Your task to perform on an android device: delete the emails in spam in the gmail app Image 0: 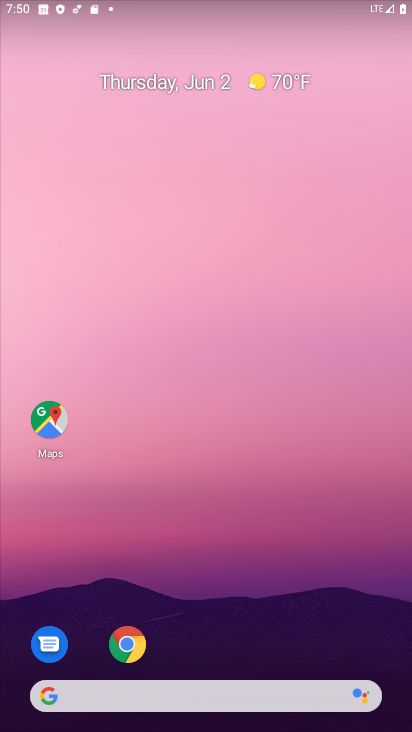
Step 0: drag from (198, 545) to (138, 27)
Your task to perform on an android device: delete the emails in spam in the gmail app Image 1: 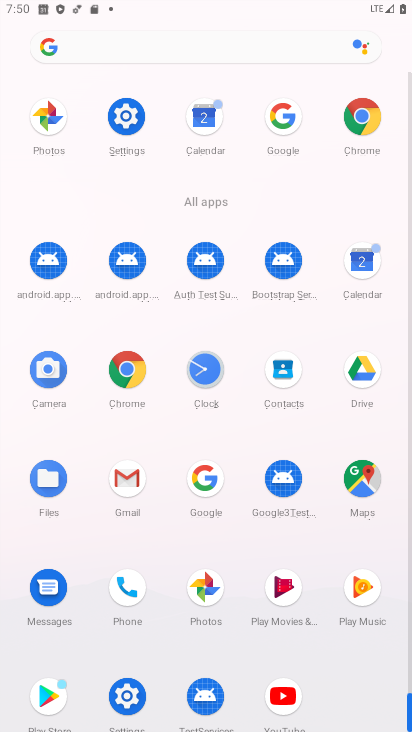
Step 1: drag from (22, 561) to (8, 191)
Your task to perform on an android device: delete the emails in spam in the gmail app Image 2: 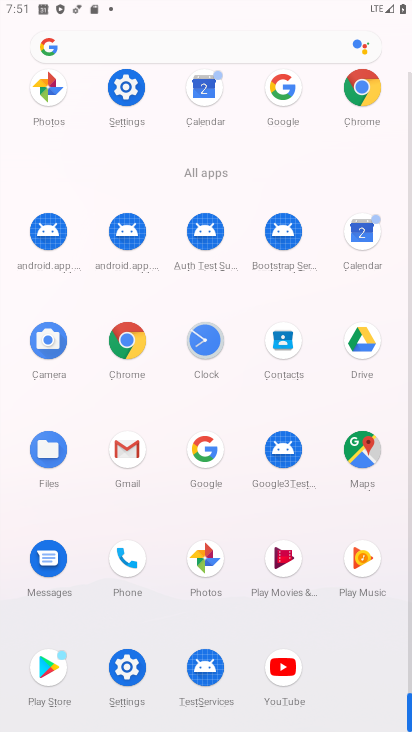
Step 2: click (126, 446)
Your task to perform on an android device: delete the emails in spam in the gmail app Image 3: 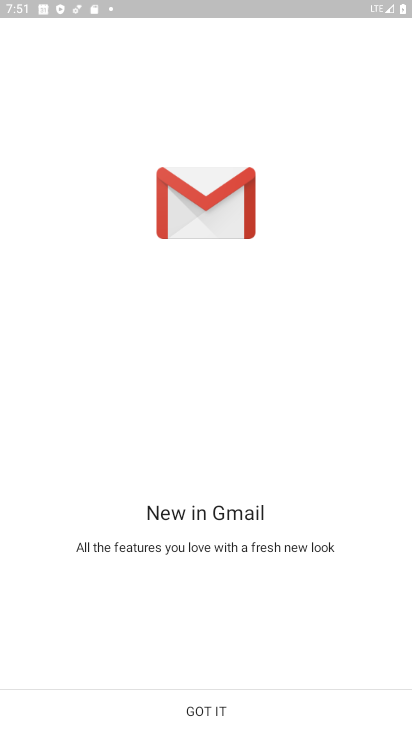
Step 3: click (236, 695)
Your task to perform on an android device: delete the emails in spam in the gmail app Image 4: 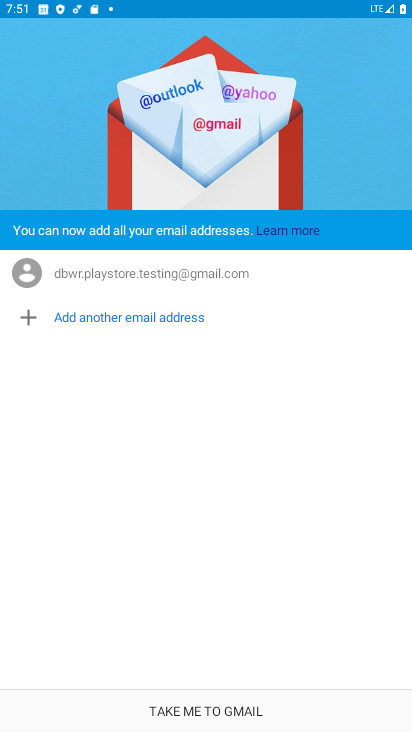
Step 4: click (199, 707)
Your task to perform on an android device: delete the emails in spam in the gmail app Image 5: 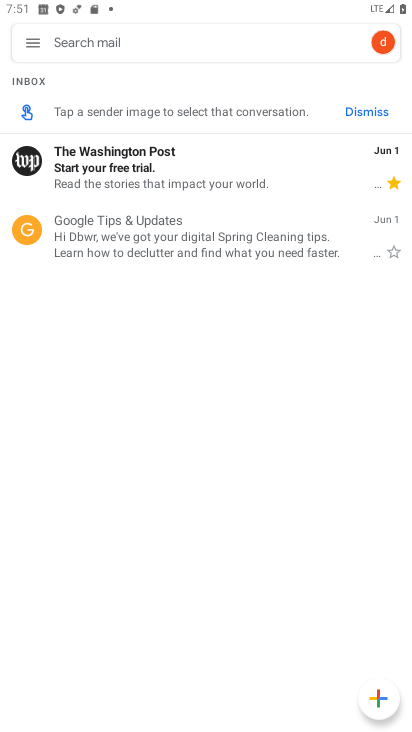
Step 5: click (170, 168)
Your task to perform on an android device: delete the emails in spam in the gmail app Image 6: 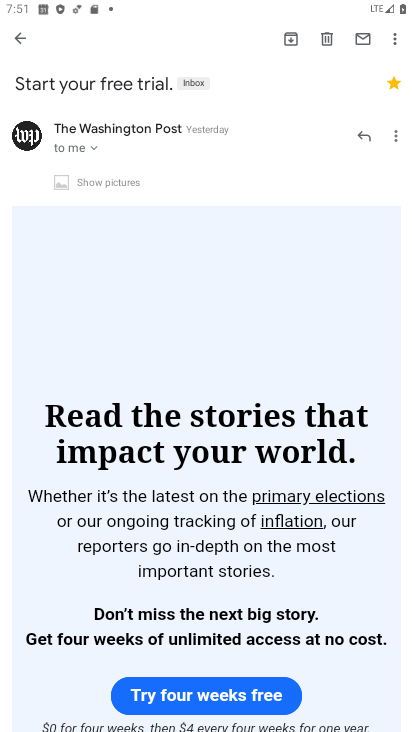
Step 6: click (323, 35)
Your task to perform on an android device: delete the emails in spam in the gmail app Image 7: 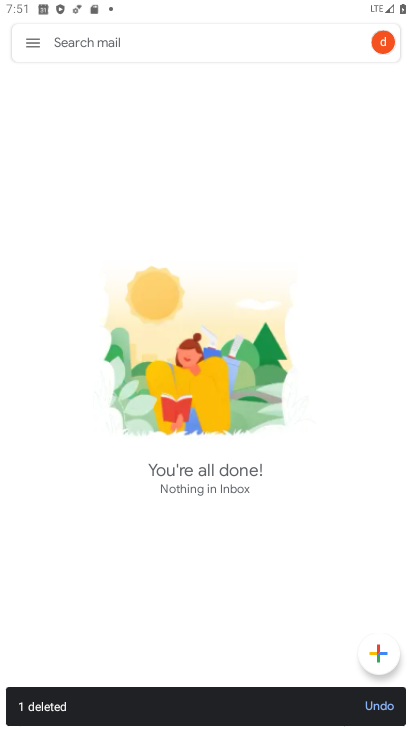
Step 7: task complete